Your task to perform on an android device: Go to notification settings Image 0: 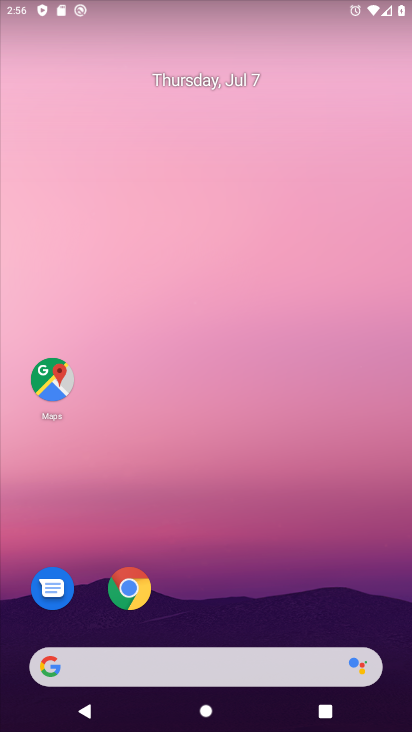
Step 0: press home button
Your task to perform on an android device: Go to notification settings Image 1: 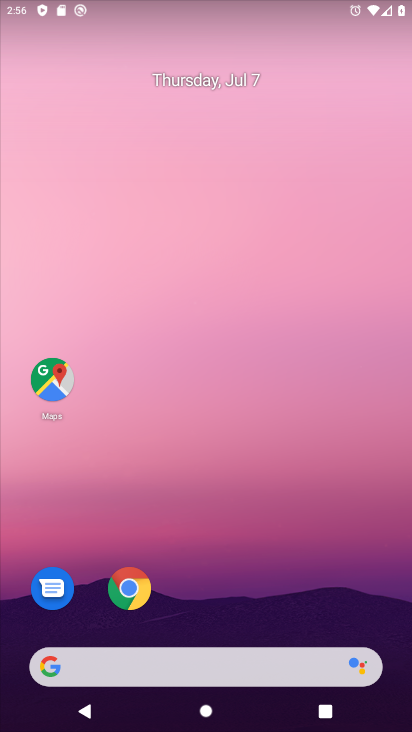
Step 1: drag from (204, 642) to (211, 154)
Your task to perform on an android device: Go to notification settings Image 2: 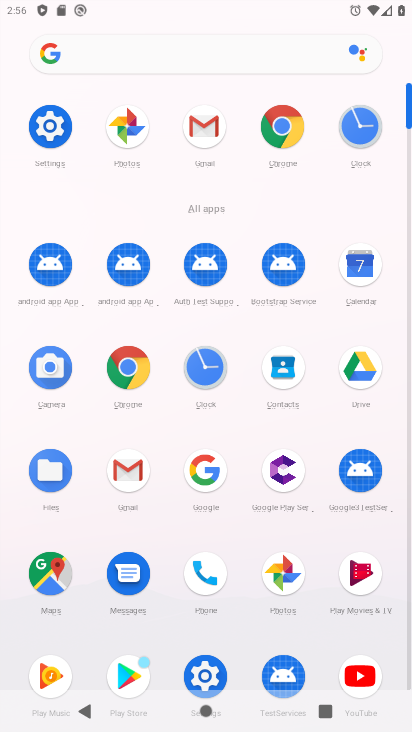
Step 2: click (53, 116)
Your task to perform on an android device: Go to notification settings Image 3: 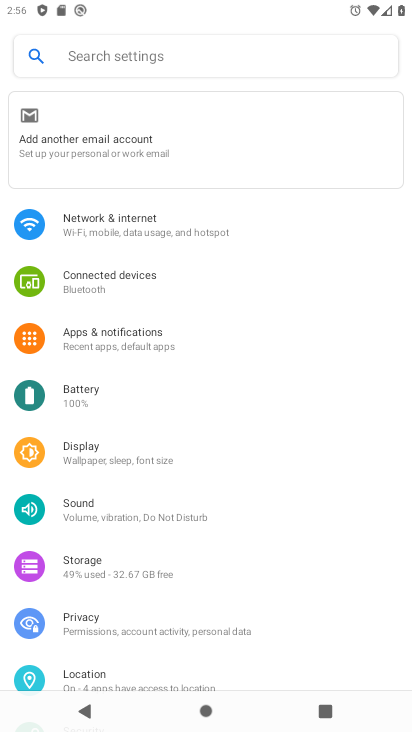
Step 3: task complete